Your task to perform on an android device: choose inbox layout in the gmail app Image 0: 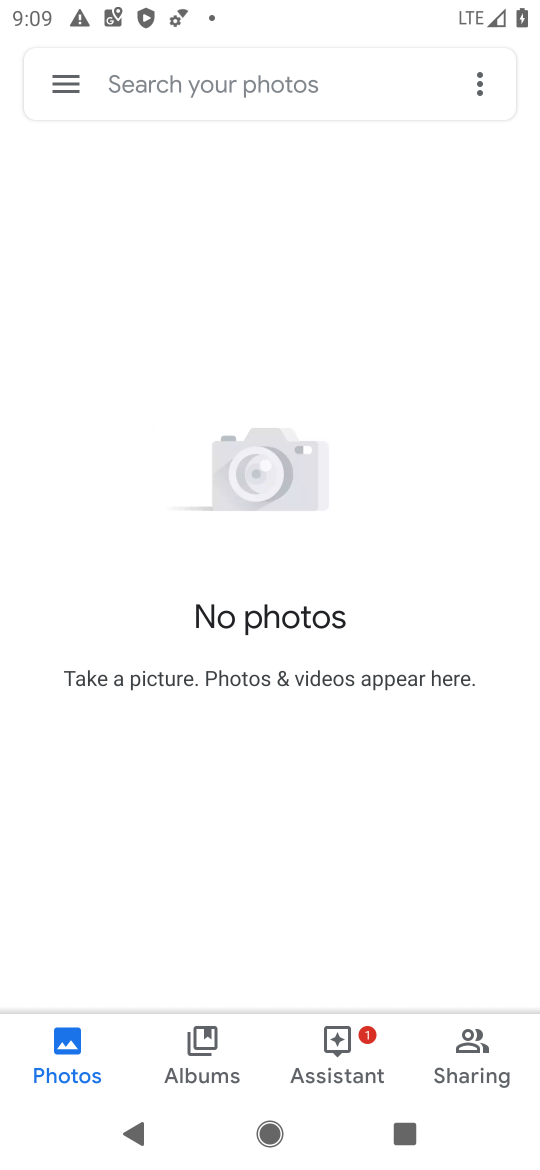
Step 0: press home button
Your task to perform on an android device: choose inbox layout in the gmail app Image 1: 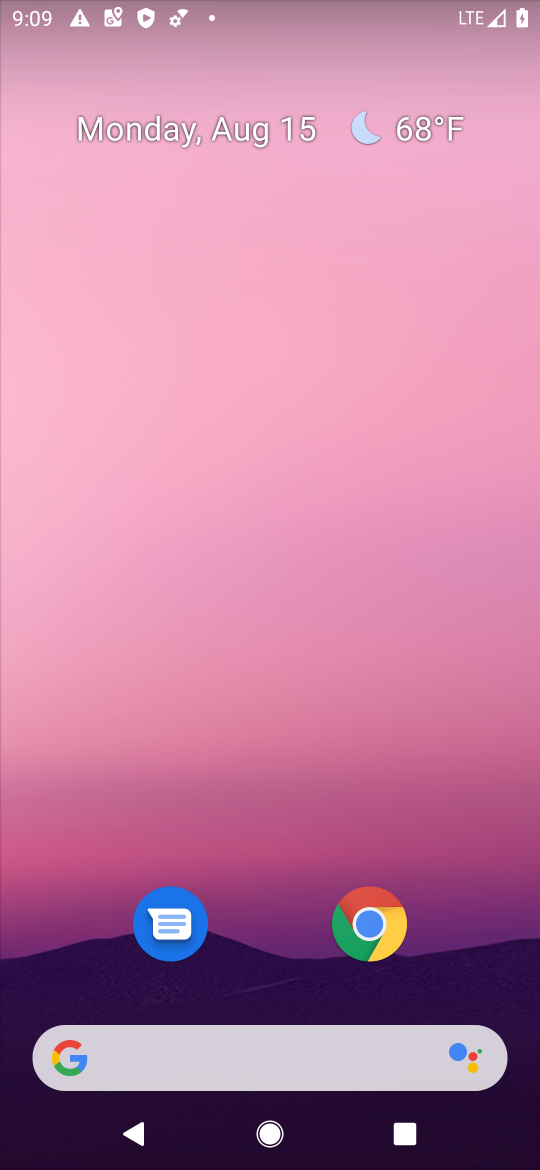
Step 1: drag from (515, 983) to (424, 257)
Your task to perform on an android device: choose inbox layout in the gmail app Image 2: 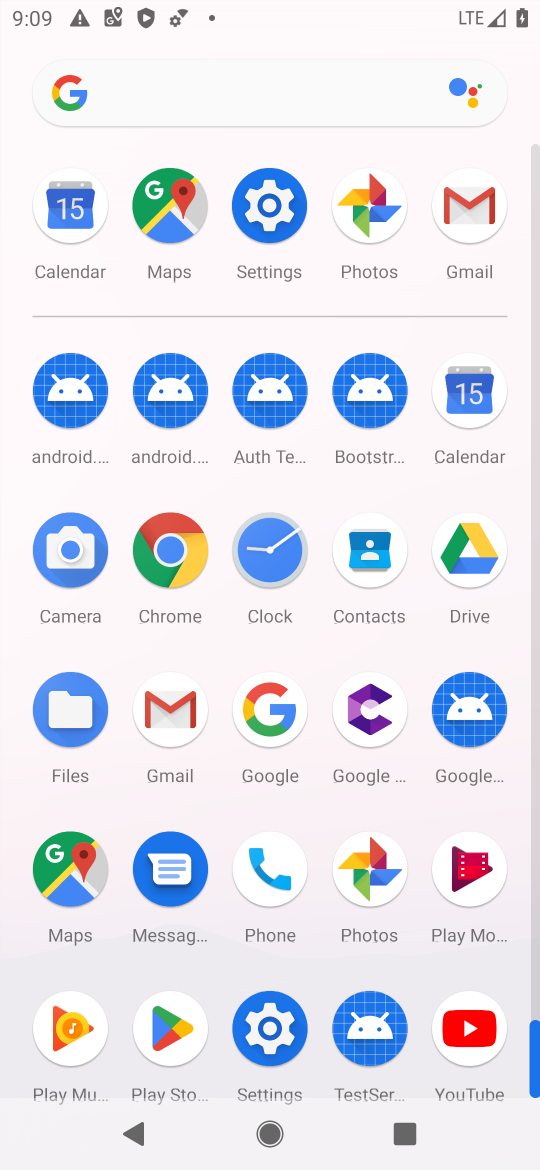
Step 2: click (170, 707)
Your task to perform on an android device: choose inbox layout in the gmail app Image 3: 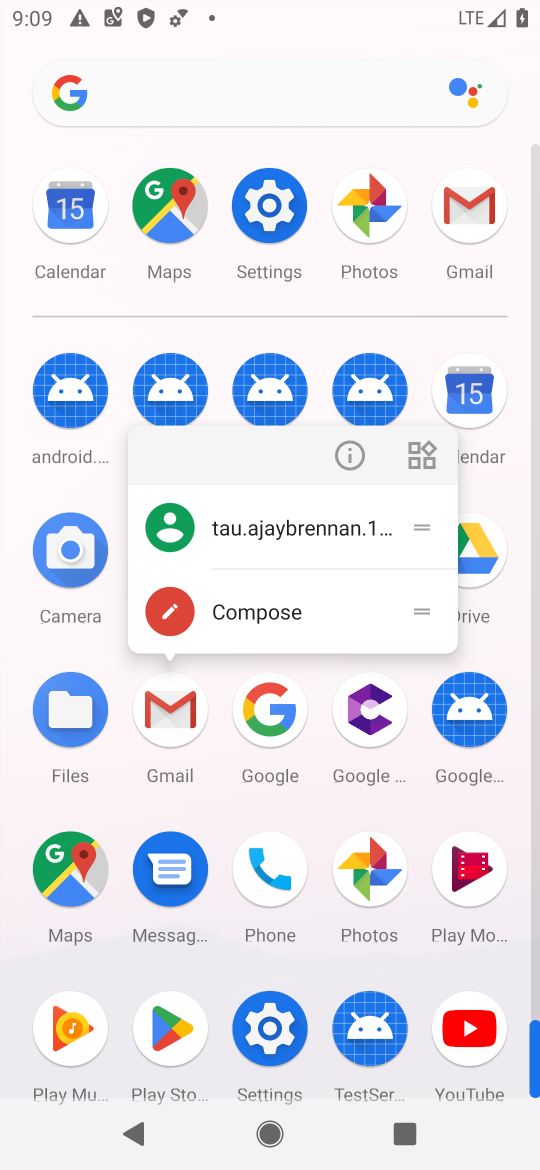
Step 3: click (174, 717)
Your task to perform on an android device: choose inbox layout in the gmail app Image 4: 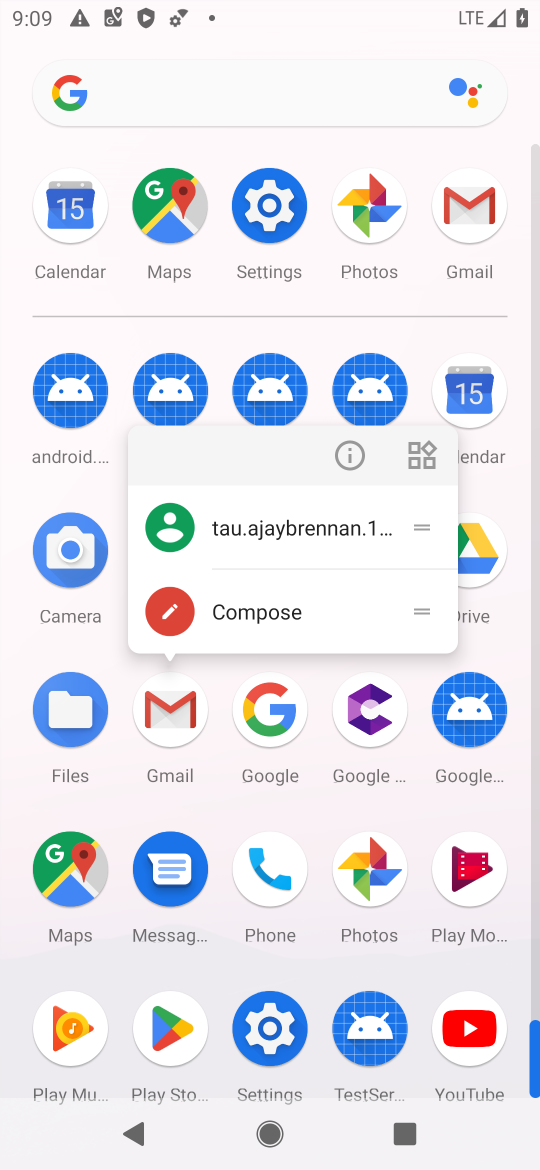
Step 4: click (172, 709)
Your task to perform on an android device: choose inbox layout in the gmail app Image 5: 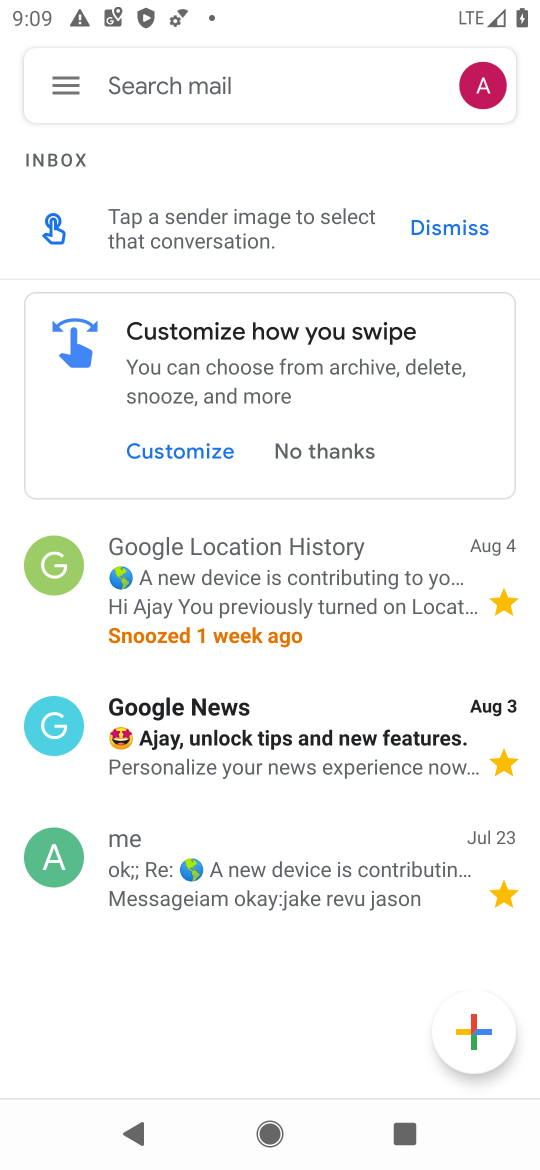
Step 5: click (53, 84)
Your task to perform on an android device: choose inbox layout in the gmail app Image 6: 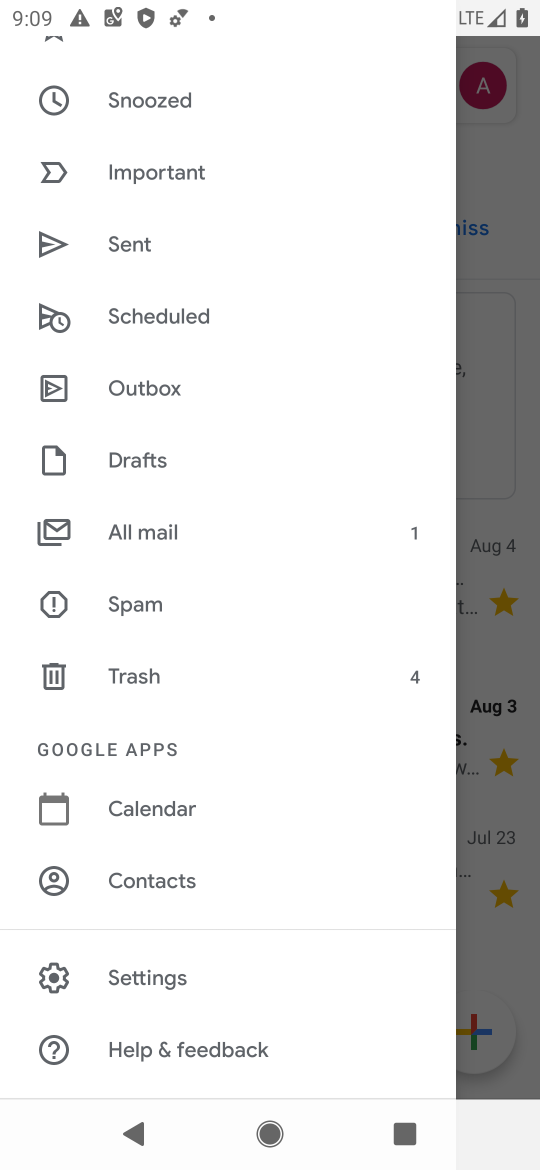
Step 6: click (157, 970)
Your task to perform on an android device: choose inbox layout in the gmail app Image 7: 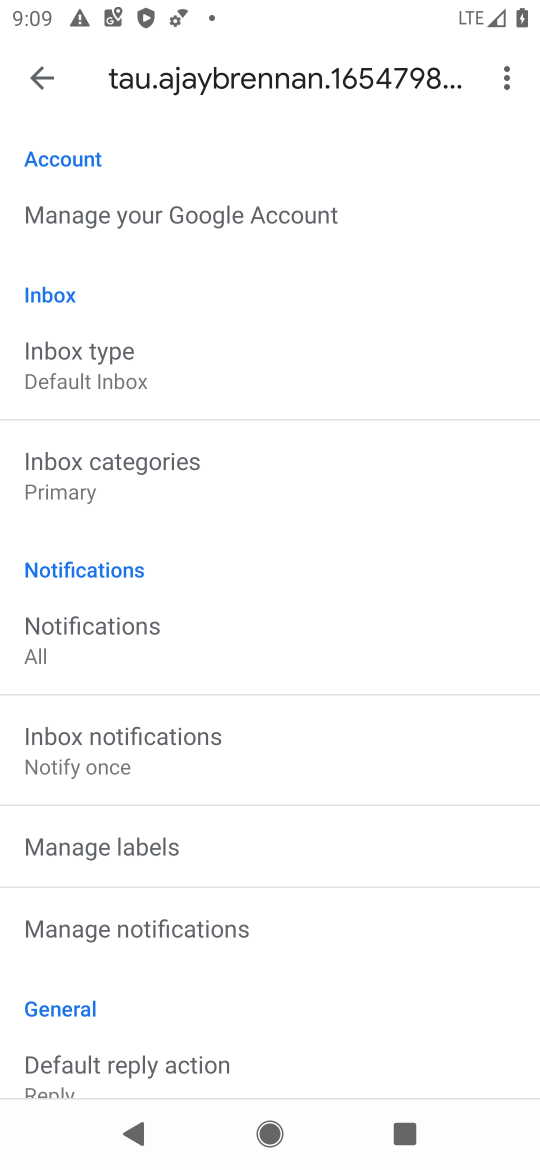
Step 7: click (100, 371)
Your task to perform on an android device: choose inbox layout in the gmail app Image 8: 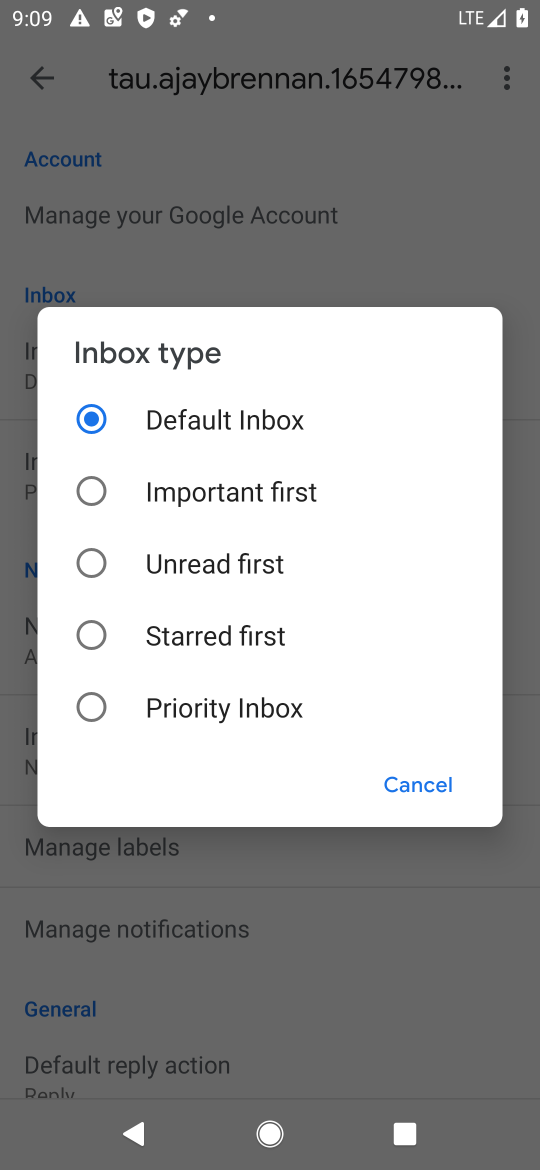
Step 8: click (92, 503)
Your task to perform on an android device: choose inbox layout in the gmail app Image 9: 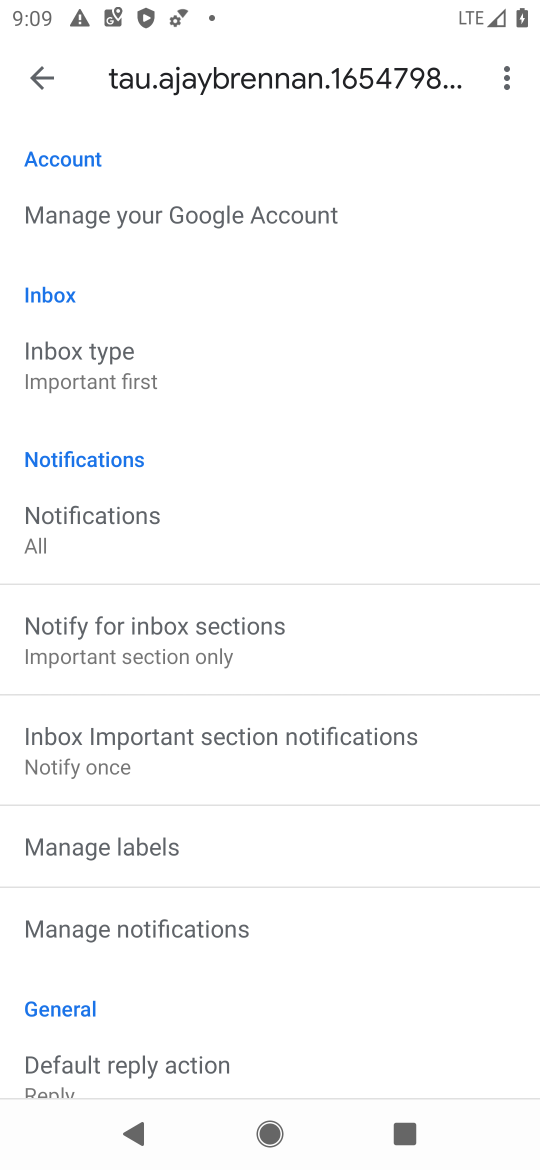
Step 9: task complete